Your task to perform on an android device: Go to privacy settings Image 0: 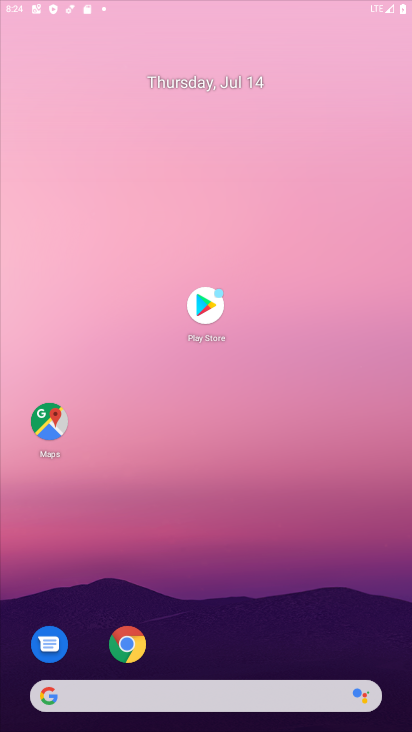
Step 0: click (227, 164)
Your task to perform on an android device: Go to privacy settings Image 1: 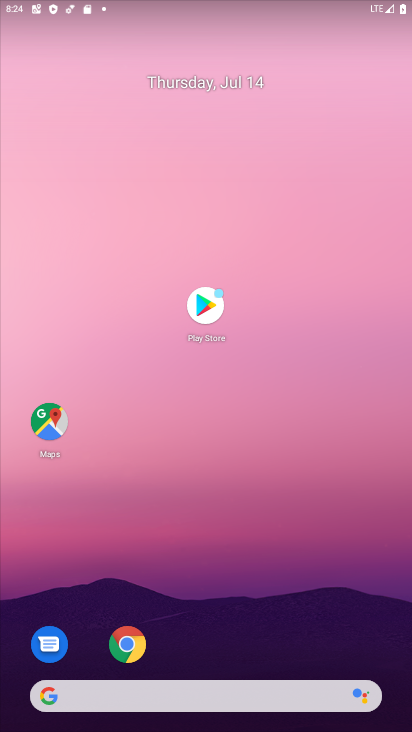
Step 1: drag from (197, 676) to (321, 60)
Your task to perform on an android device: Go to privacy settings Image 2: 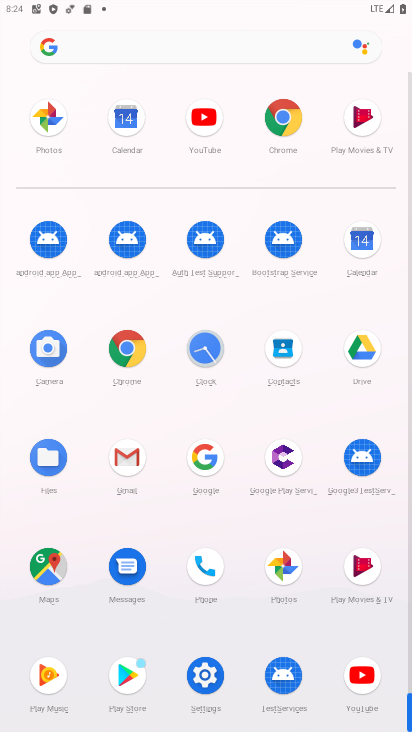
Step 2: click (200, 680)
Your task to perform on an android device: Go to privacy settings Image 3: 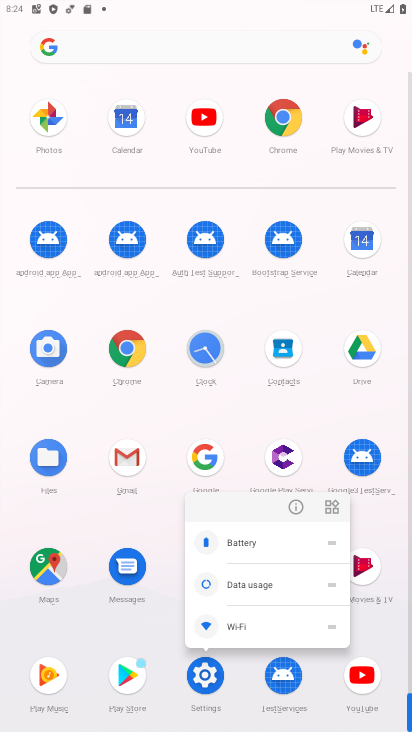
Step 3: click (294, 512)
Your task to perform on an android device: Go to privacy settings Image 4: 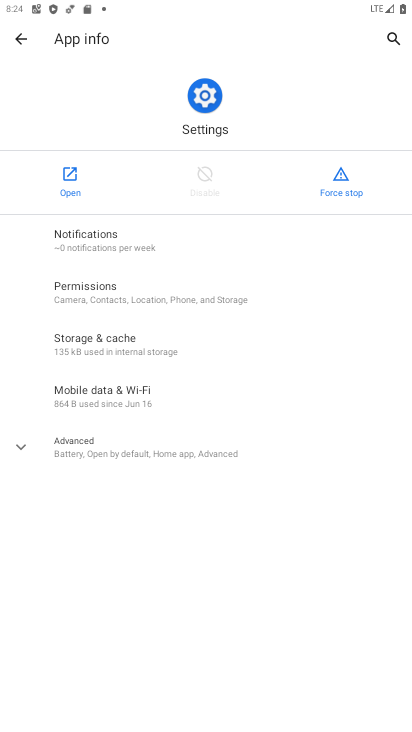
Step 4: drag from (209, 577) to (231, 368)
Your task to perform on an android device: Go to privacy settings Image 5: 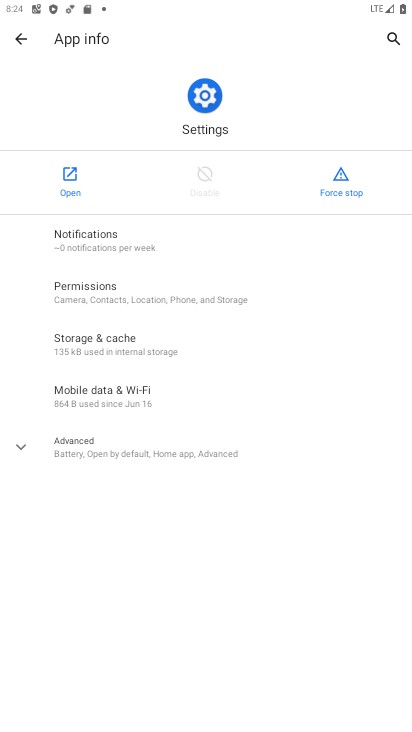
Step 5: click (63, 187)
Your task to perform on an android device: Go to privacy settings Image 6: 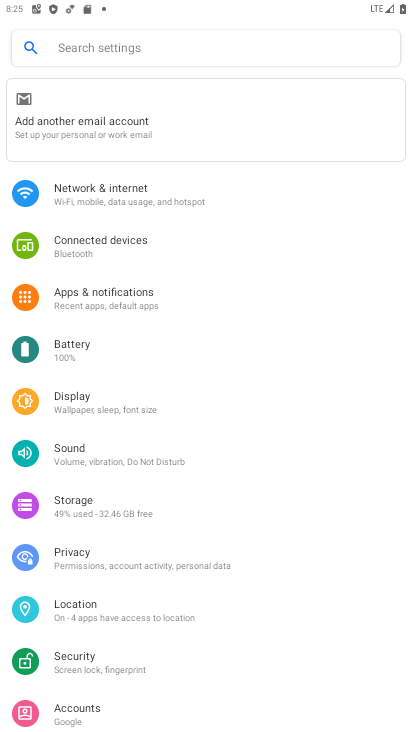
Step 6: drag from (148, 538) to (176, 287)
Your task to perform on an android device: Go to privacy settings Image 7: 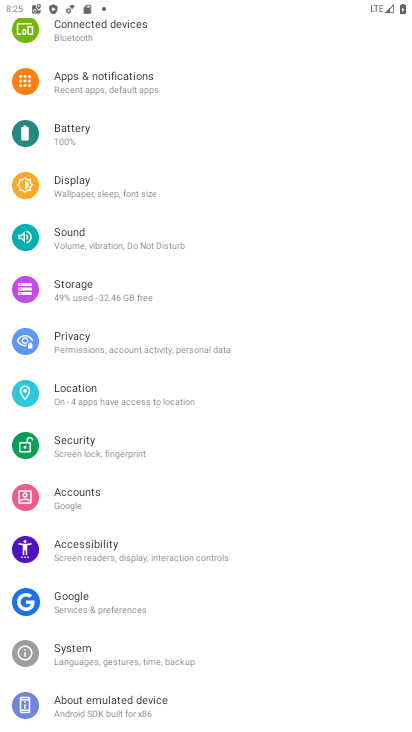
Step 7: click (87, 335)
Your task to perform on an android device: Go to privacy settings Image 8: 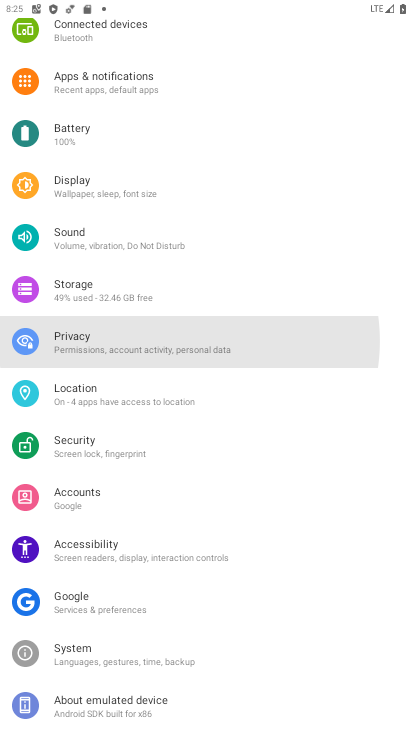
Step 8: click (87, 335)
Your task to perform on an android device: Go to privacy settings Image 9: 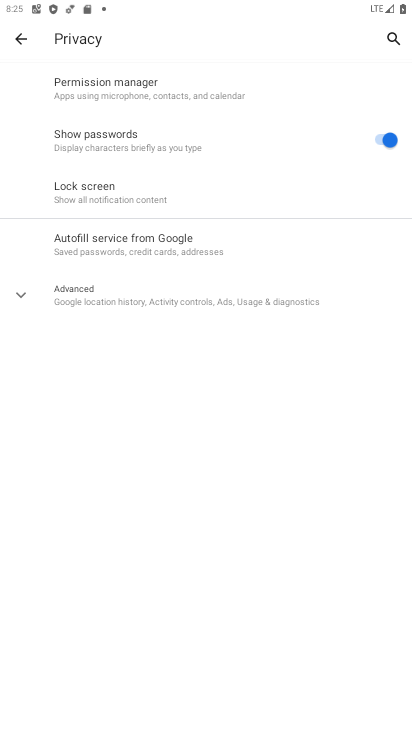
Step 9: task complete